Your task to perform on an android device: Check the news Image 0: 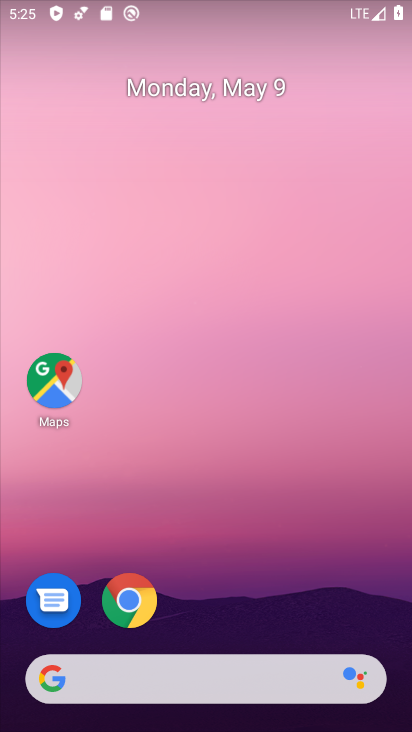
Step 0: drag from (215, 628) to (312, 22)
Your task to perform on an android device: Check the news Image 1: 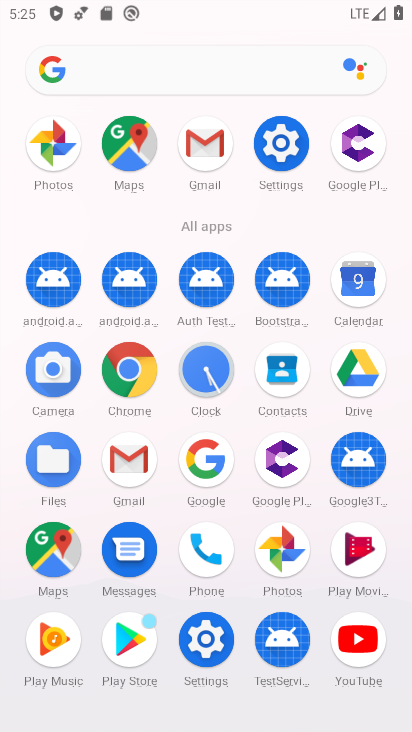
Step 1: click (250, 62)
Your task to perform on an android device: Check the news Image 2: 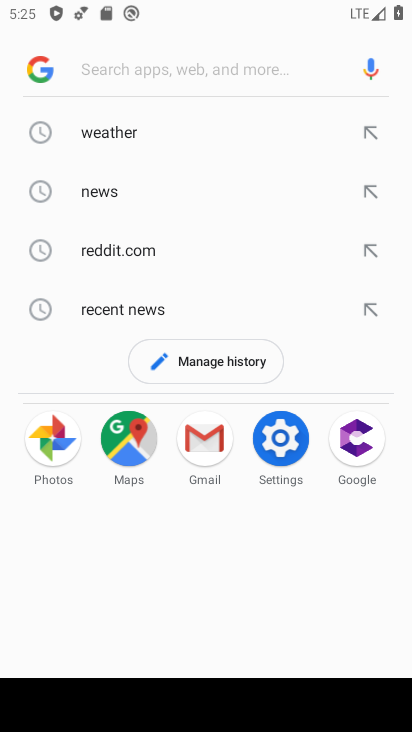
Step 2: click (115, 183)
Your task to perform on an android device: Check the news Image 3: 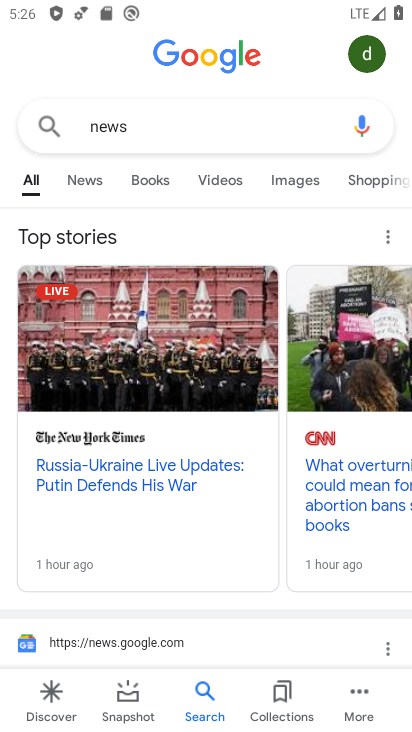
Step 3: task complete